Your task to perform on an android device: Open wifi settings Image 0: 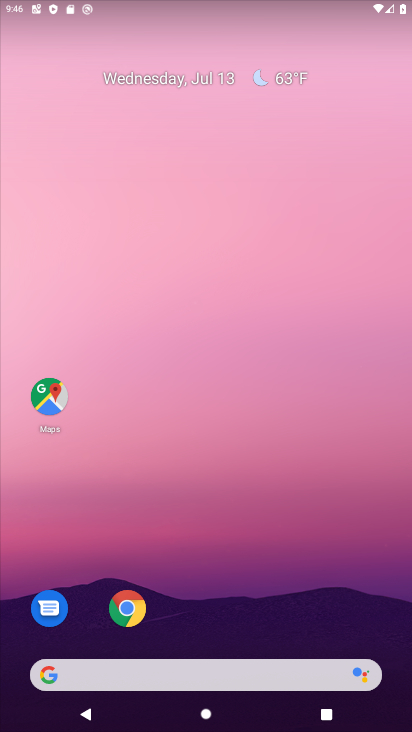
Step 0: drag from (225, 641) to (238, 11)
Your task to perform on an android device: Open wifi settings Image 1: 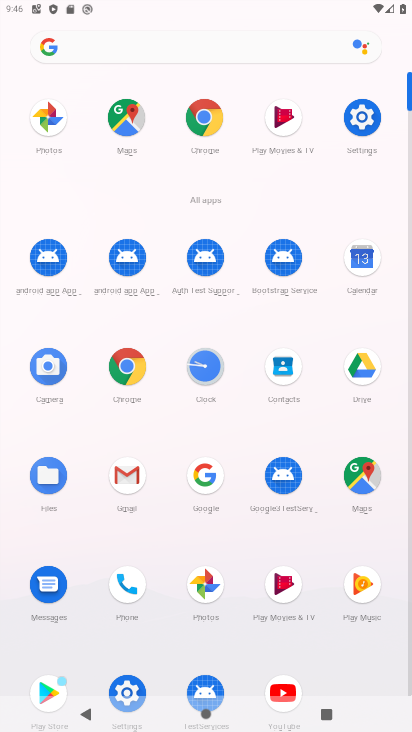
Step 1: click (125, 682)
Your task to perform on an android device: Open wifi settings Image 2: 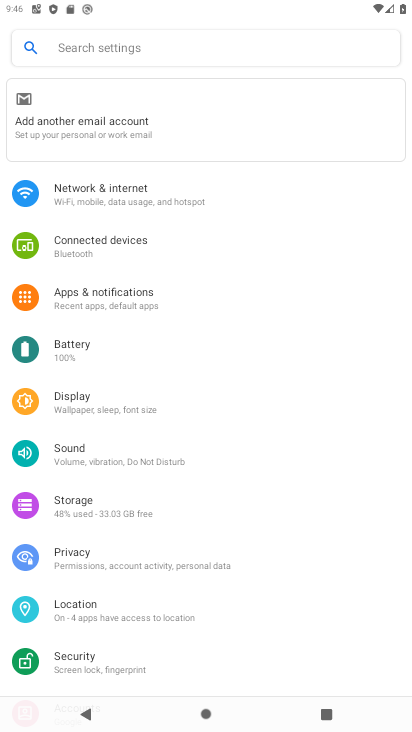
Step 2: click (151, 188)
Your task to perform on an android device: Open wifi settings Image 3: 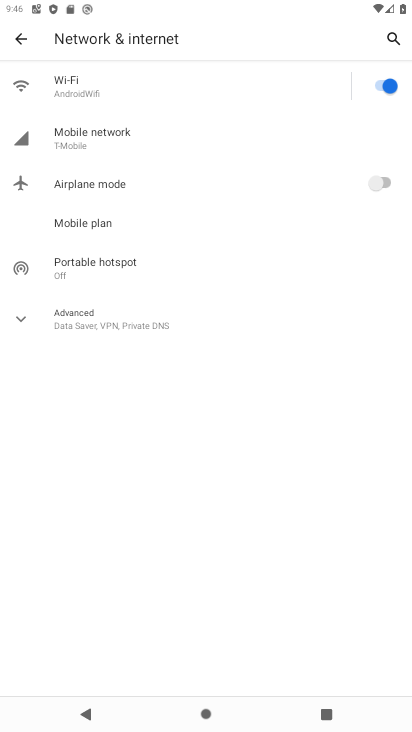
Step 3: click (107, 90)
Your task to perform on an android device: Open wifi settings Image 4: 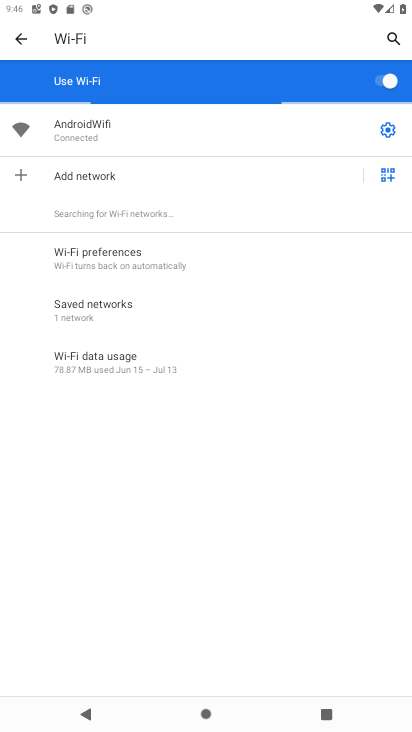
Step 4: task complete